Your task to perform on an android device: turn off sleep mode Image 0: 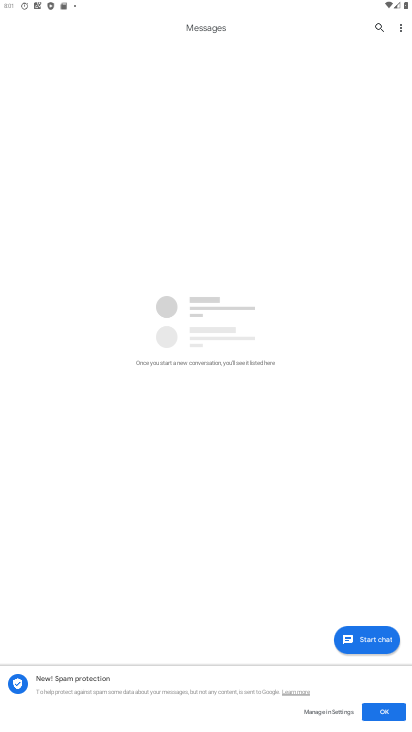
Step 0: press home button
Your task to perform on an android device: turn off sleep mode Image 1: 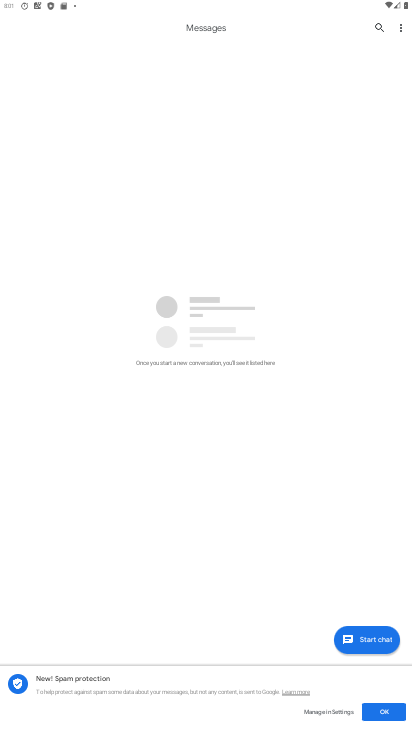
Step 1: press home button
Your task to perform on an android device: turn off sleep mode Image 2: 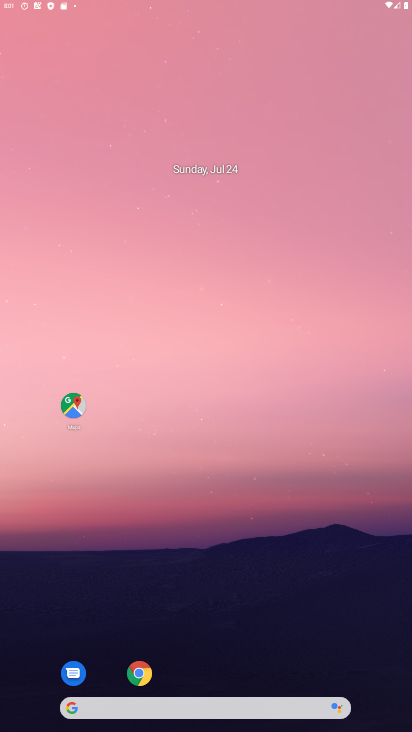
Step 2: press home button
Your task to perform on an android device: turn off sleep mode Image 3: 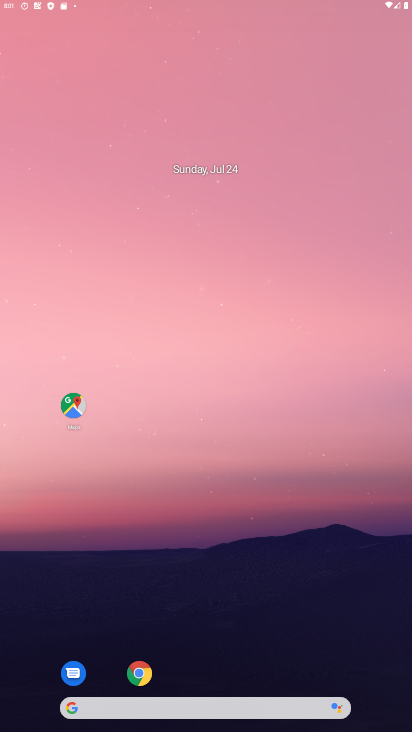
Step 3: drag from (273, 34) to (406, 63)
Your task to perform on an android device: turn off sleep mode Image 4: 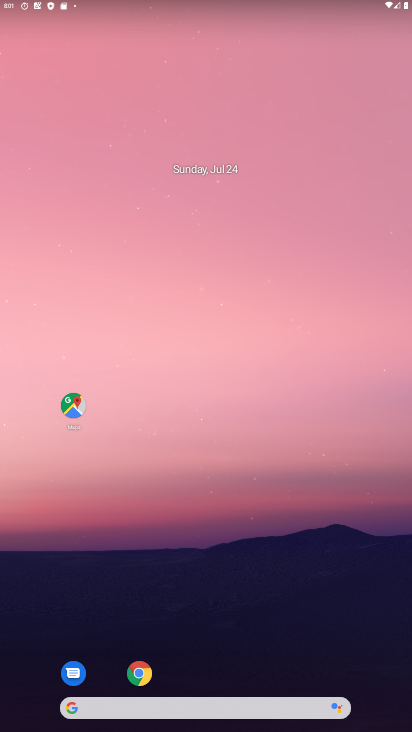
Step 4: drag from (172, 694) to (262, 42)
Your task to perform on an android device: turn off sleep mode Image 5: 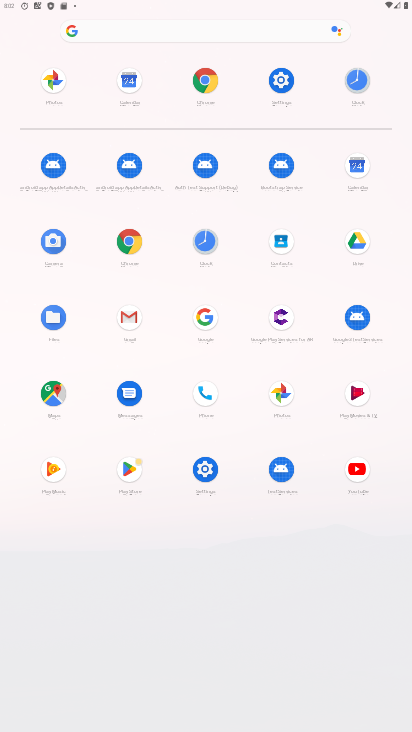
Step 5: click (281, 86)
Your task to perform on an android device: turn off sleep mode Image 6: 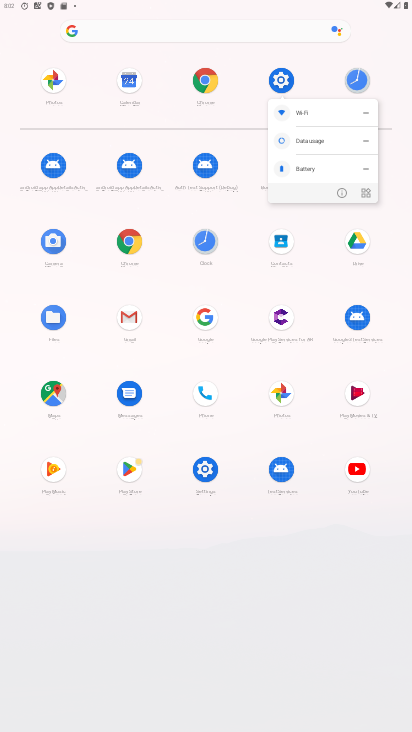
Step 6: click (345, 199)
Your task to perform on an android device: turn off sleep mode Image 7: 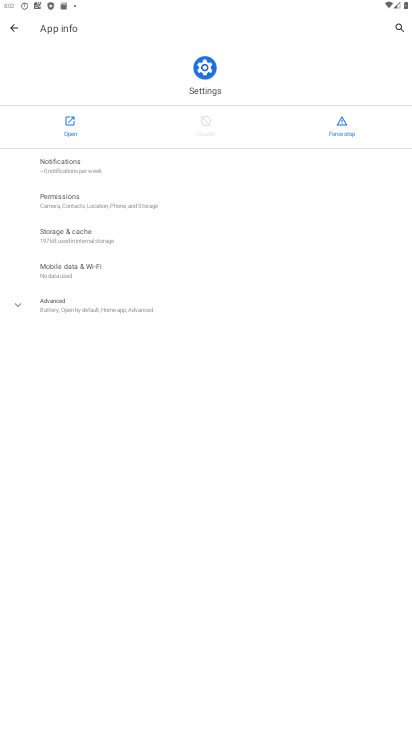
Step 7: click (65, 125)
Your task to perform on an android device: turn off sleep mode Image 8: 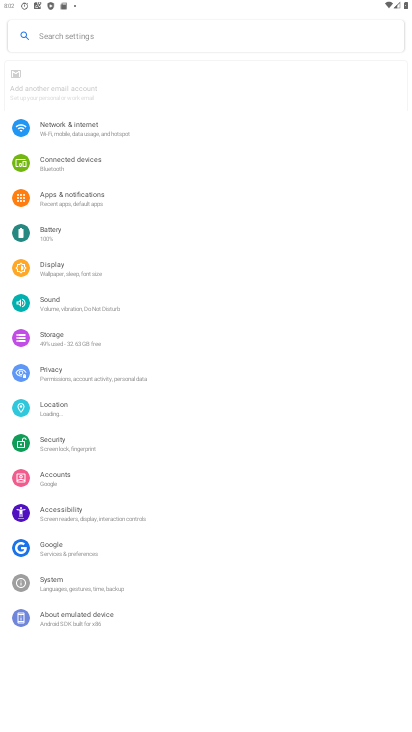
Step 8: drag from (217, 506) to (214, 202)
Your task to perform on an android device: turn off sleep mode Image 9: 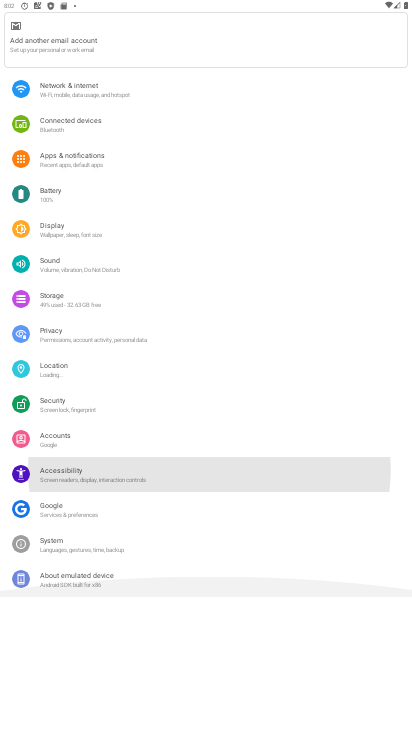
Step 9: drag from (177, 119) to (215, 583)
Your task to perform on an android device: turn off sleep mode Image 10: 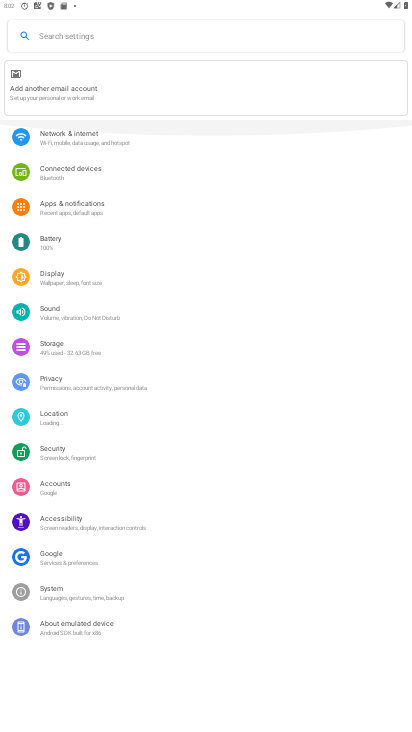
Step 10: drag from (185, 546) to (205, 162)
Your task to perform on an android device: turn off sleep mode Image 11: 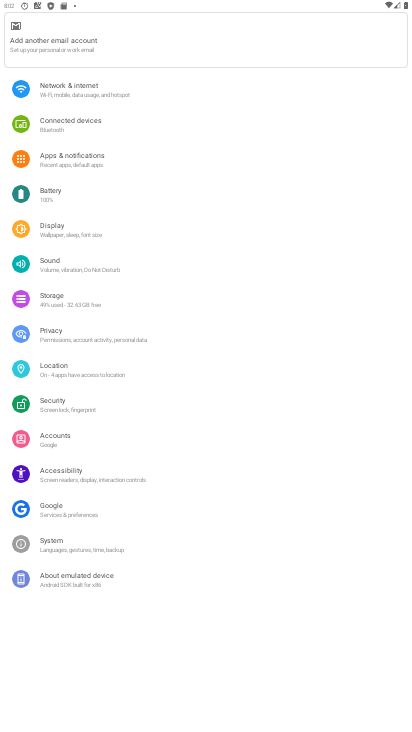
Step 11: drag from (135, 569) to (190, 225)
Your task to perform on an android device: turn off sleep mode Image 12: 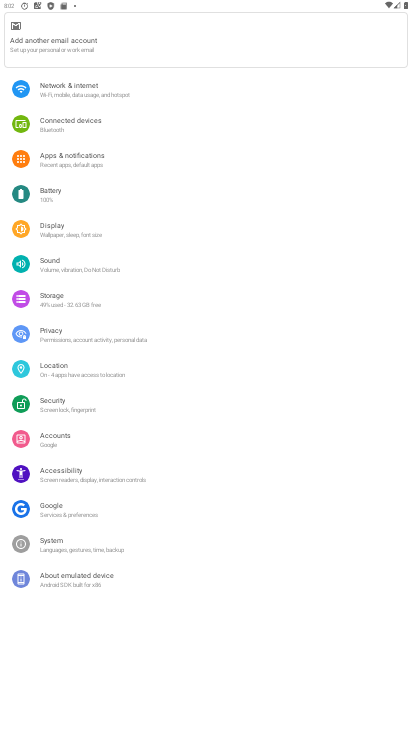
Step 12: drag from (141, 99) to (160, 693)
Your task to perform on an android device: turn off sleep mode Image 13: 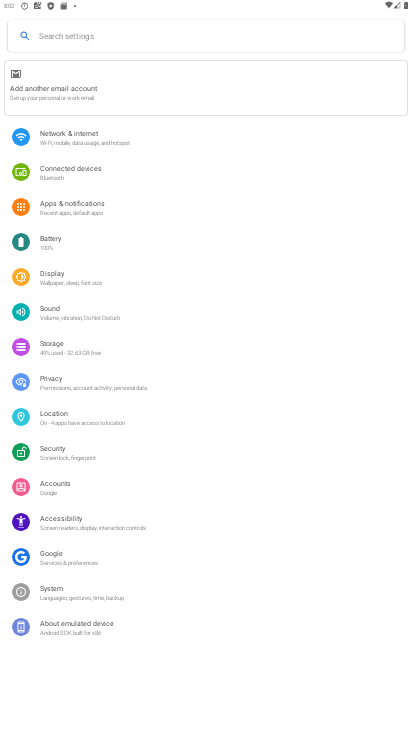
Step 13: drag from (110, 578) to (147, 219)
Your task to perform on an android device: turn off sleep mode Image 14: 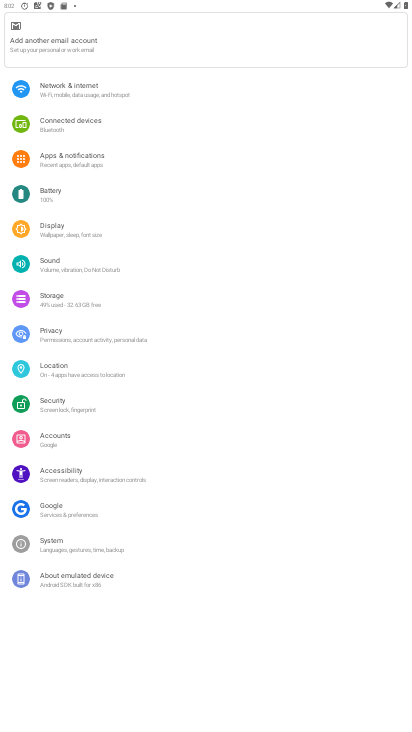
Step 14: drag from (124, 113) to (195, 697)
Your task to perform on an android device: turn off sleep mode Image 15: 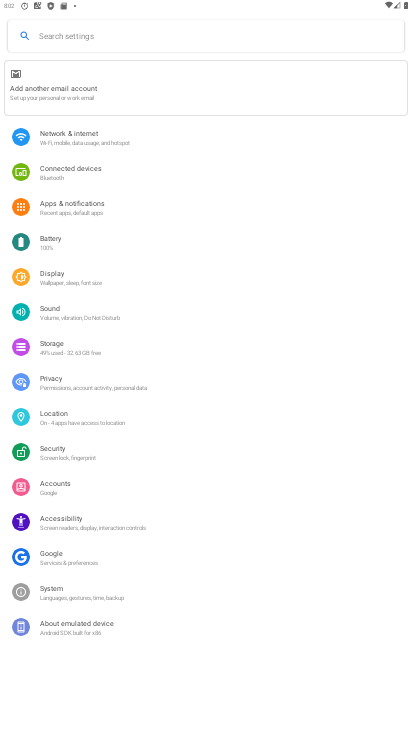
Step 15: drag from (136, 138) to (212, 684)
Your task to perform on an android device: turn off sleep mode Image 16: 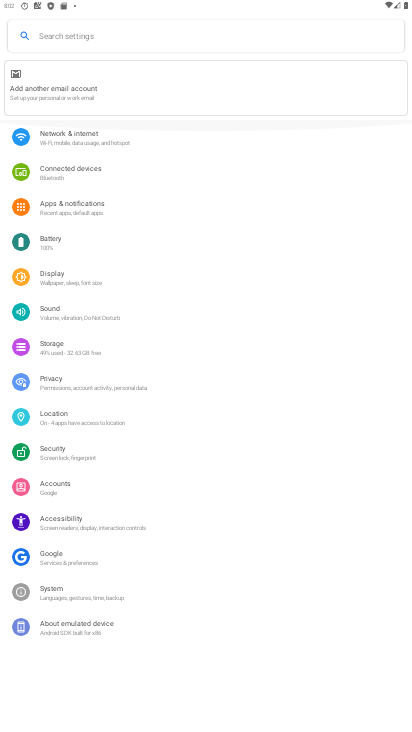
Step 16: drag from (152, 608) to (163, 281)
Your task to perform on an android device: turn off sleep mode Image 17: 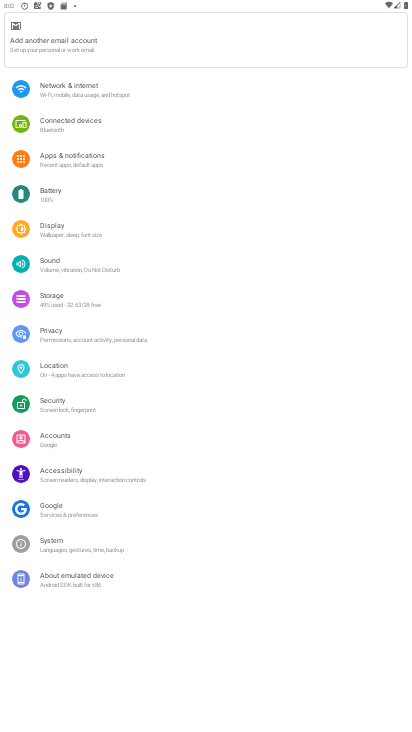
Step 17: click (115, 243)
Your task to perform on an android device: turn off sleep mode Image 18: 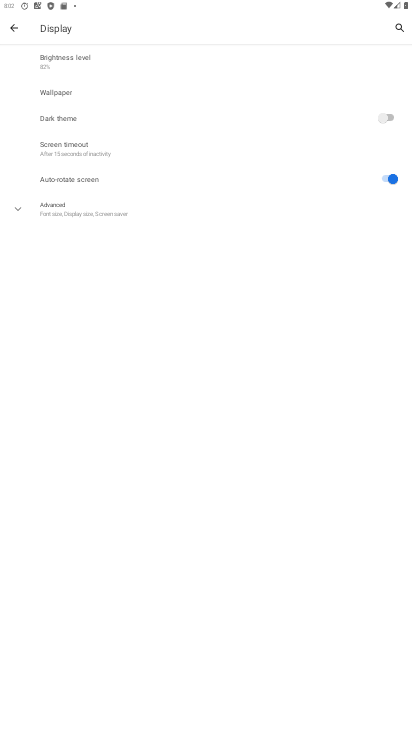
Step 18: drag from (230, 141) to (189, 1)
Your task to perform on an android device: turn off sleep mode Image 19: 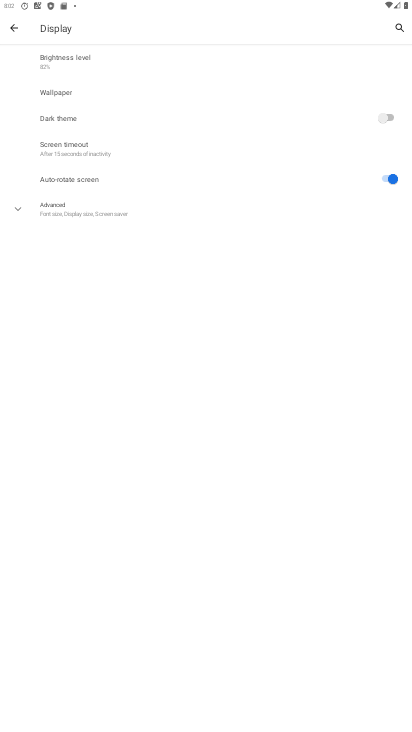
Step 19: drag from (148, 111) to (239, 628)
Your task to perform on an android device: turn off sleep mode Image 20: 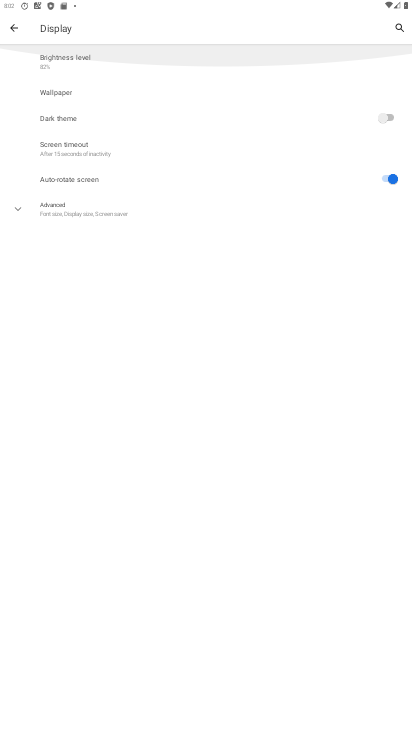
Step 20: drag from (221, 479) to (215, 177)
Your task to perform on an android device: turn off sleep mode Image 21: 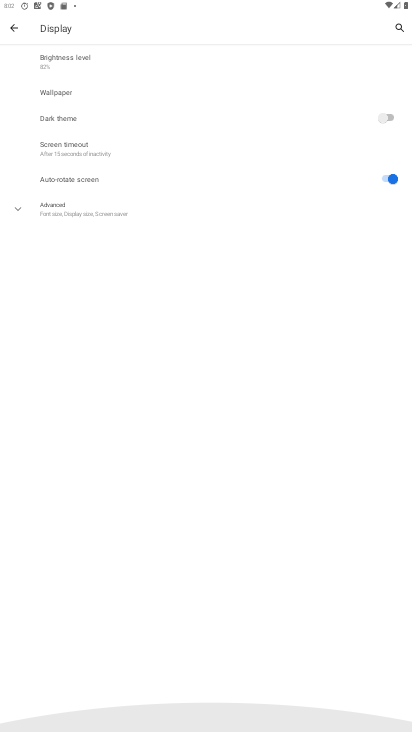
Step 21: drag from (186, 98) to (250, 517)
Your task to perform on an android device: turn off sleep mode Image 22: 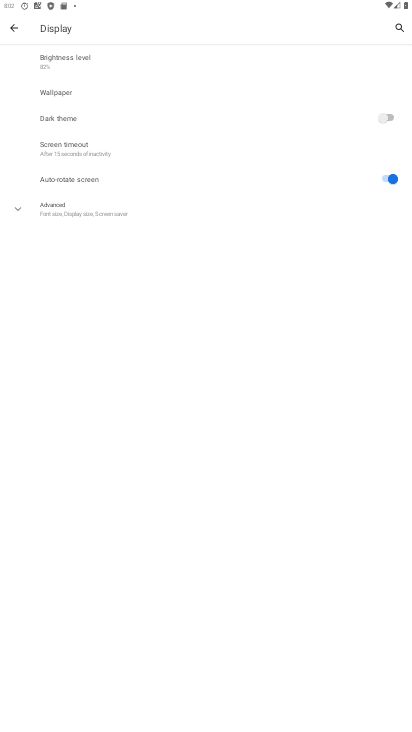
Step 22: drag from (104, 77) to (120, 388)
Your task to perform on an android device: turn off sleep mode Image 23: 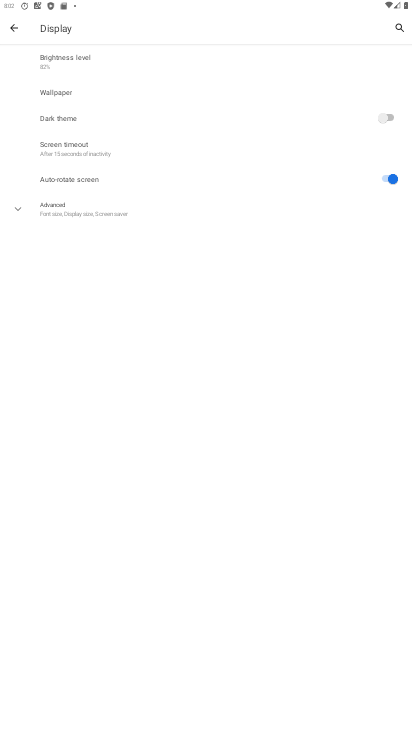
Step 23: drag from (183, 79) to (134, 440)
Your task to perform on an android device: turn off sleep mode Image 24: 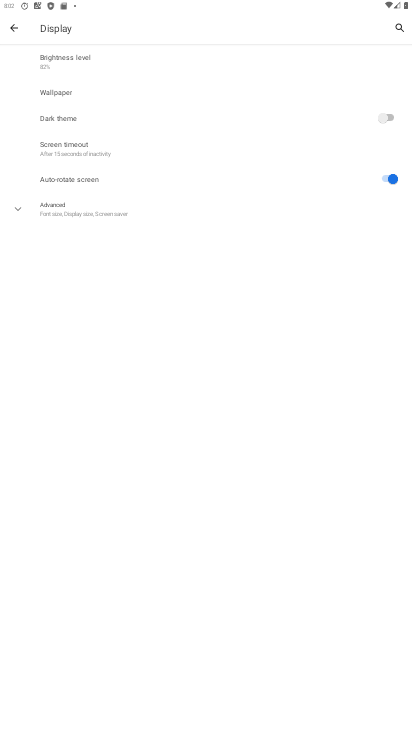
Step 24: drag from (222, 176) to (319, 677)
Your task to perform on an android device: turn off sleep mode Image 25: 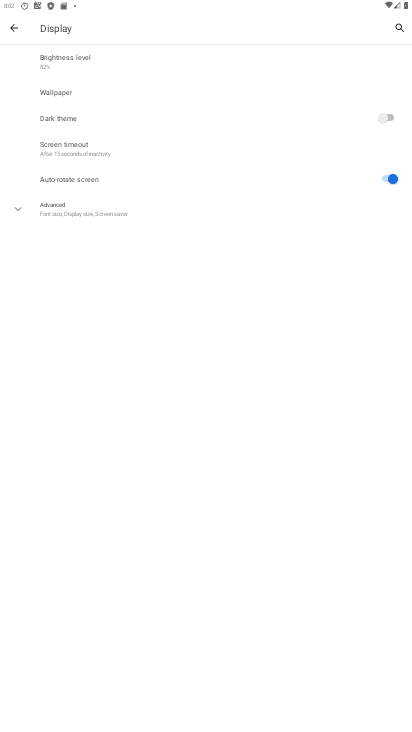
Step 25: click (207, 575)
Your task to perform on an android device: turn off sleep mode Image 26: 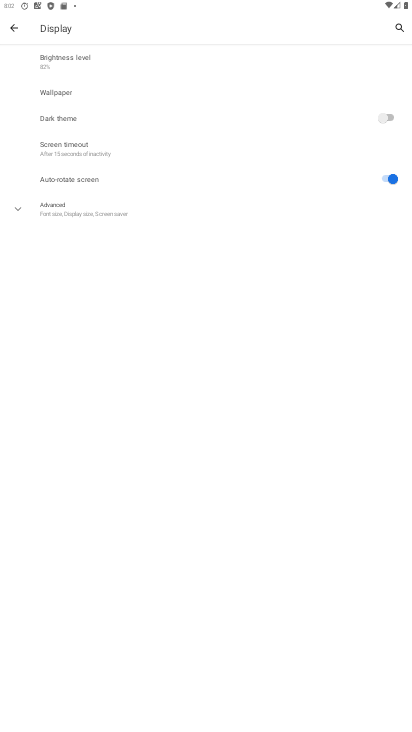
Step 26: click (109, 158)
Your task to perform on an android device: turn off sleep mode Image 27: 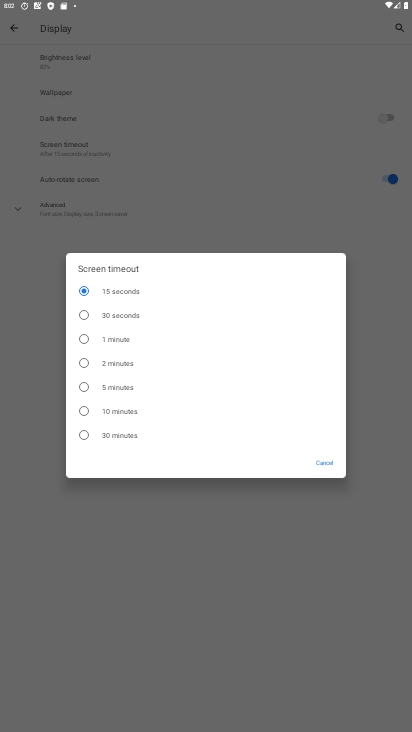
Step 27: click (88, 336)
Your task to perform on an android device: turn off sleep mode Image 28: 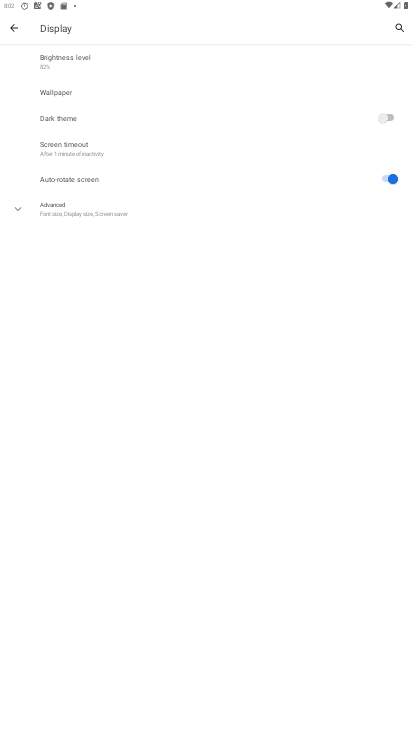
Step 28: task complete